Your task to perform on an android device: read, delete, or share a saved page in the chrome app Image 0: 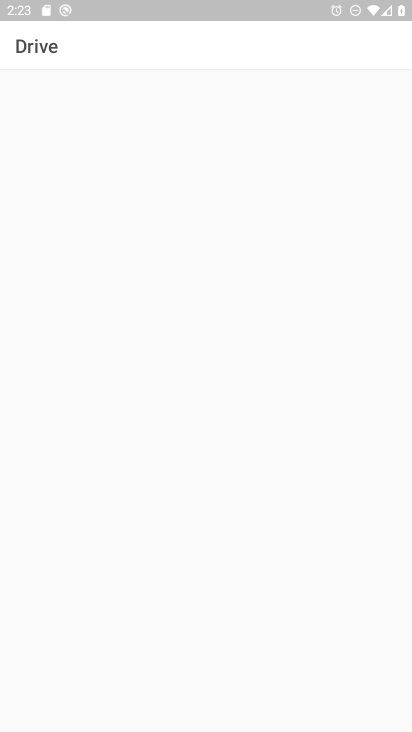
Step 0: press home button
Your task to perform on an android device: read, delete, or share a saved page in the chrome app Image 1: 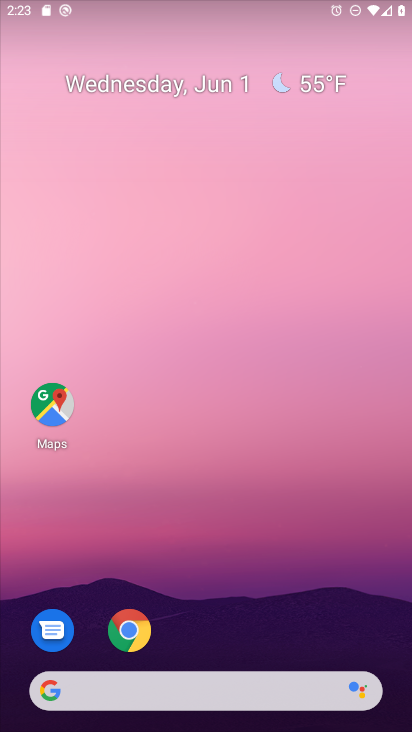
Step 1: drag from (380, 642) to (354, 5)
Your task to perform on an android device: read, delete, or share a saved page in the chrome app Image 2: 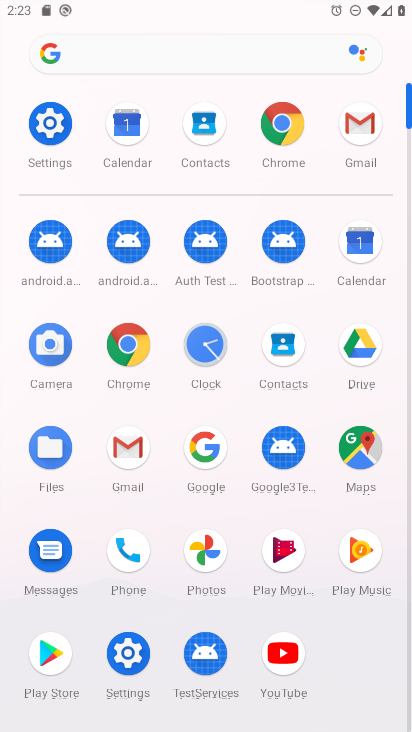
Step 2: click (130, 338)
Your task to perform on an android device: read, delete, or share a saved page in the chrome app Image 3: 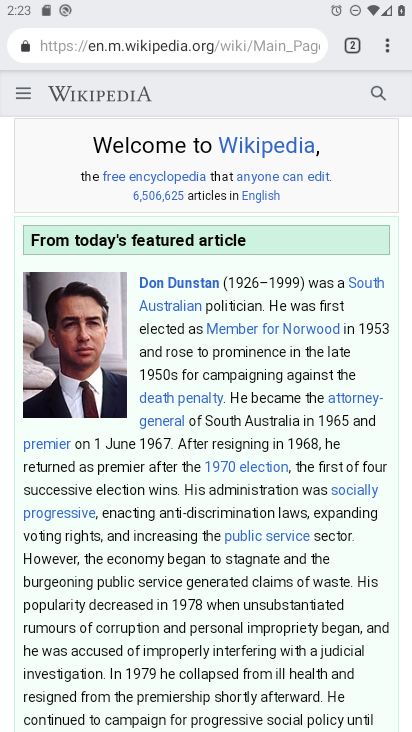
Step 3: click (383, 38)
Your task to perform on an android device: read, delete, or share a saved page in the chrome app Image 4: 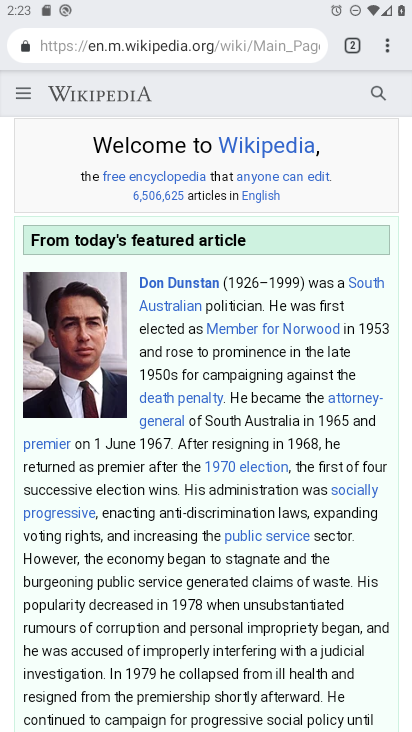
Step 4: task complete